Your task to perform on an android device: allow cookies in the chrome app Image 0: 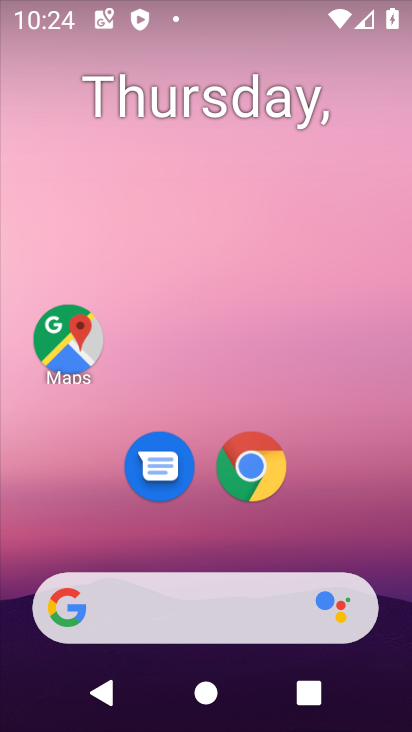
Step 0: click (247, 462)
Your task to perform on an android device: allow cookies in the chrome app Image 1: 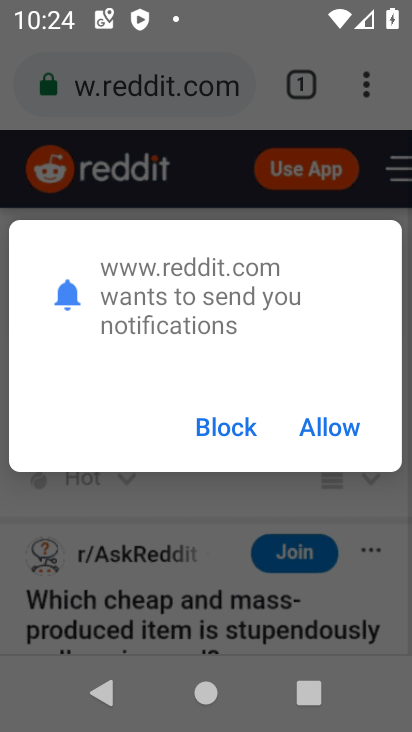
Step 1: click (315, 423)
Your task to perform on an android device: allow cookies in the chrome app Image 2: 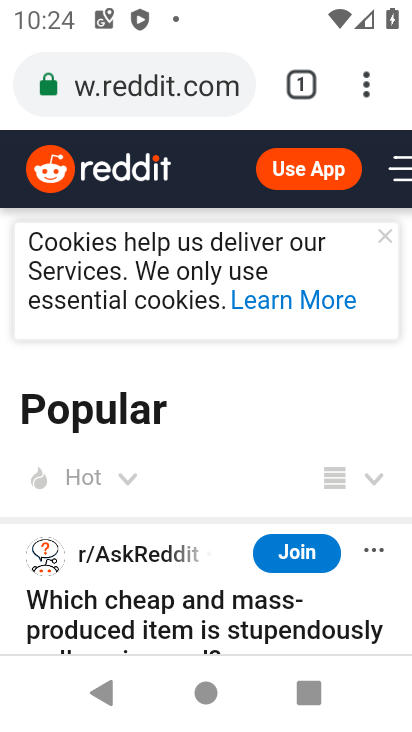
Step 2: click (362, 89)
Your task to perform on an android device: allow cookies in the chrome app Image 3: 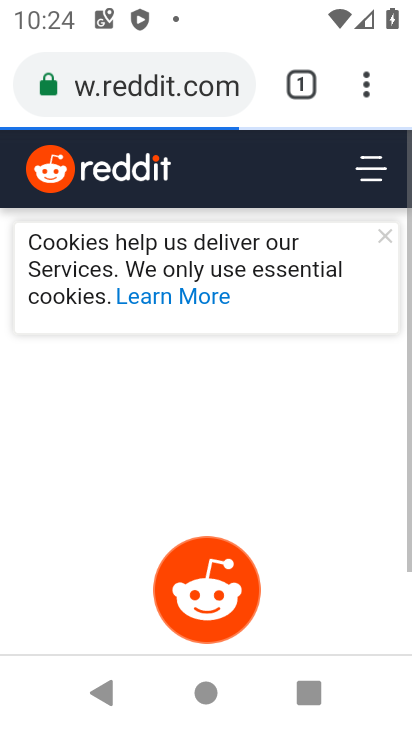
Step 3: drag from (367, 88) to (121, 505)
Your task to perform on an android device: allow cookies in the chrome app Image 4: 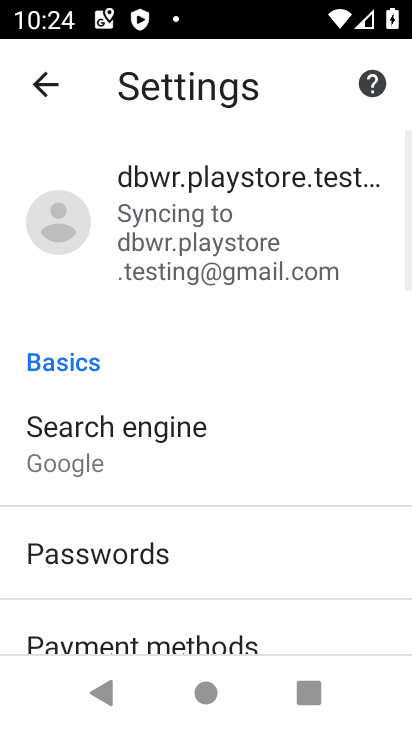
Step 4: drag from (217, 527) to (221, 289)
Your task to perform on an android device: allow cookies in the chrome app Image 5: 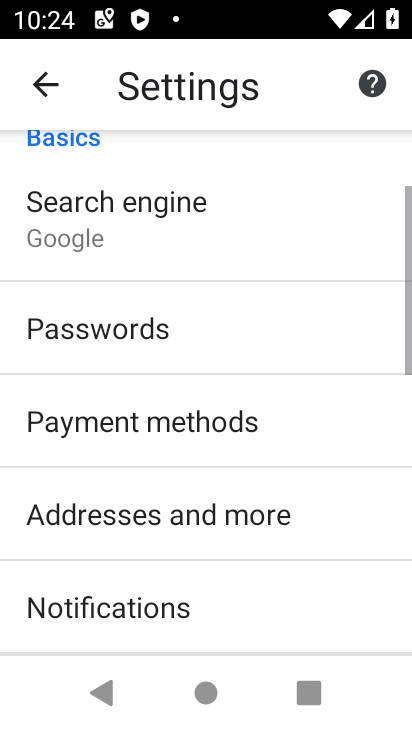
Step 5: drag from (192, 576) to (148, 230)
Your task to perform on an android device: allow cookies in the chrome app Image 6: 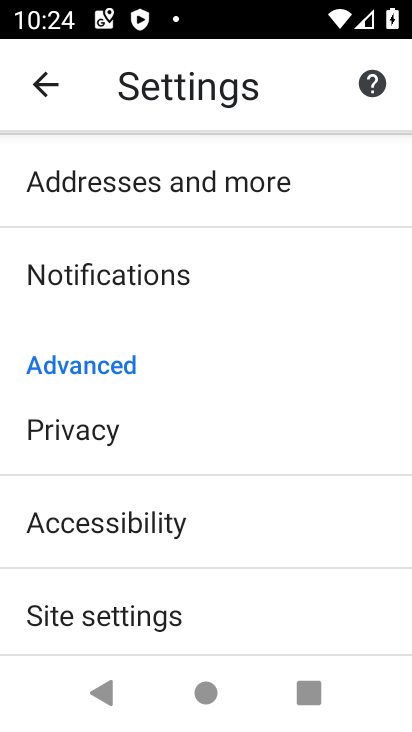
Step 6: drag from (141, 583) to (162, 329)
Your task to perform on an android device: allow cookies in the chrome app Image 7: 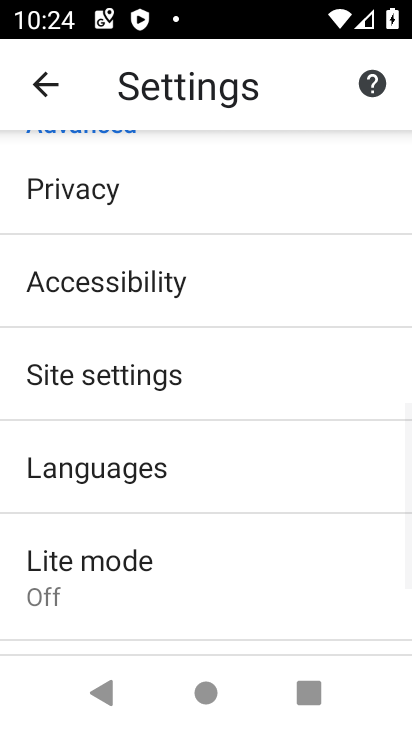
Step 7: click (150, 366)
Your task to perform on an android device: allow cookies in the chrome app Image 8: 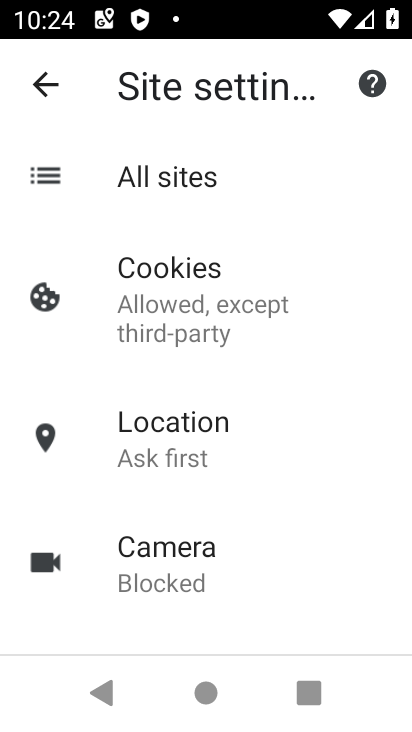
Step 8: click (164, 279)
Your task to perform on an android device: allow cookies in the chrome app Image 9: 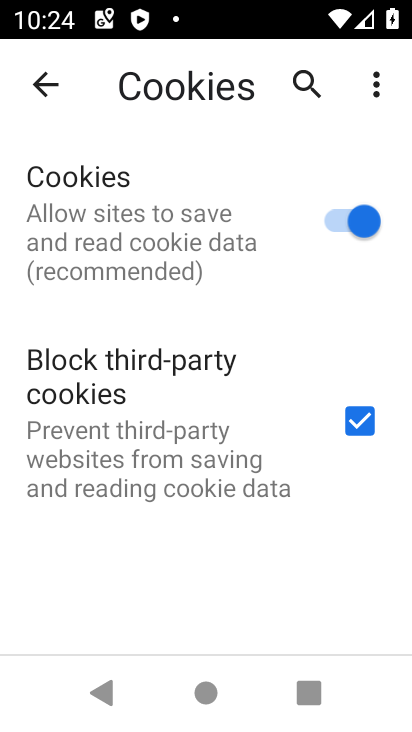
Step 9: task complete